Your task to perform on an android device: open wifi settings Image 0: 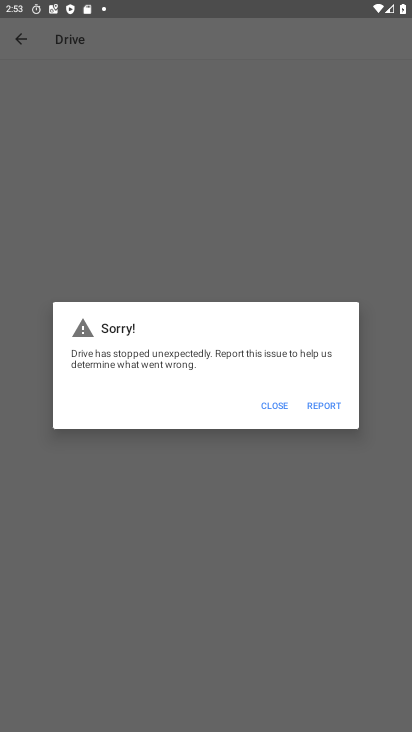
Step 0: press home button
Your task to perform on an android device: open wifi settings Image 1: 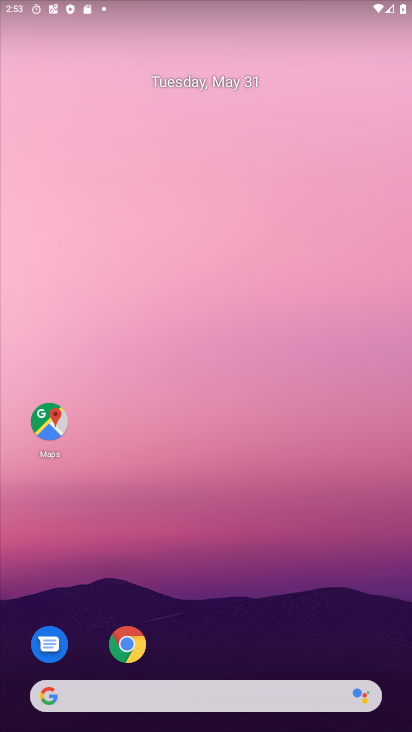
Step 1: drag from (388, 712) to (330, 205)
Your task to perform on an android device: open wifi settings Image 2: 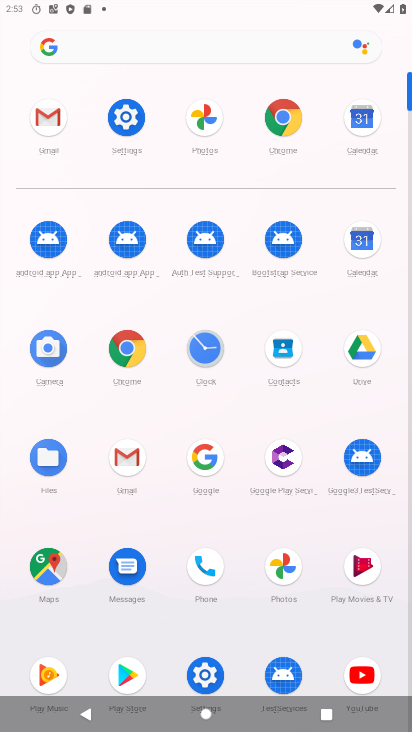
Step 2: click (134, 114)
Your task to perform on an android device: open wifi settings Image 3: 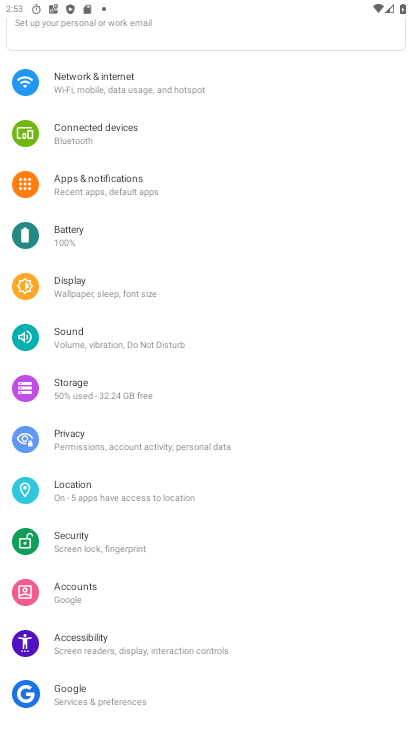
Step 3: click (97, 94)
Your task to perform on an android device: open wifi settings Image 4: 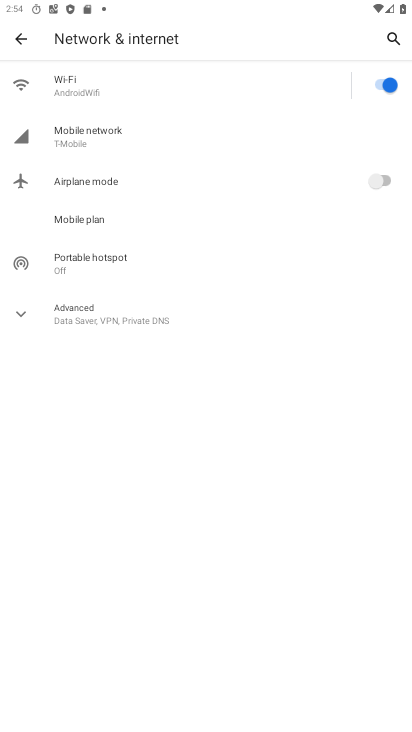
Step 4: press home button
Your task to perform on an android device: open wifi settings Image 5: 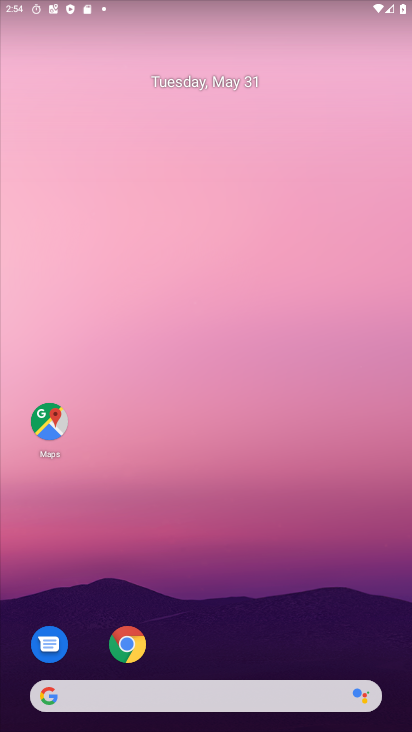
Step 5: drag from (405, 682) to (402, 199)
Your task to perform on an android device: open wifi settings Image 6: 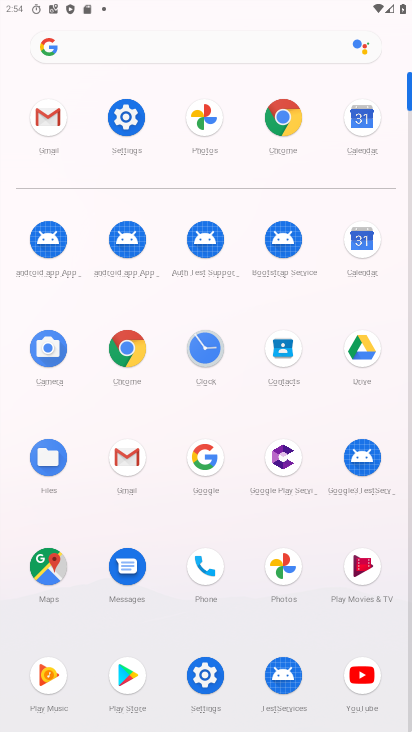
Step 6: click (120, 119)
Your task to perform on an android device: open wifi settings Image 7: 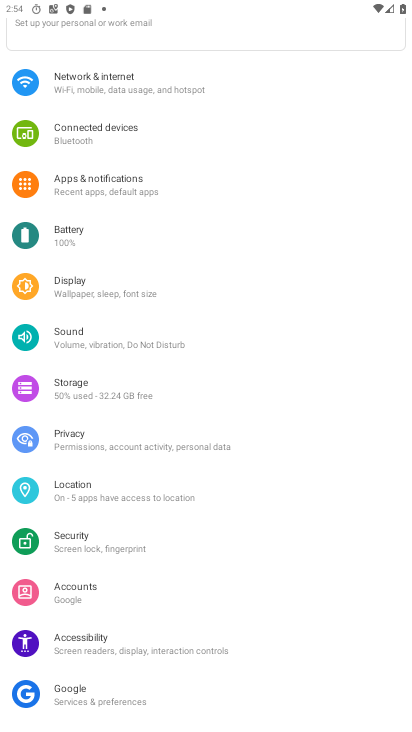
Step 7: click (104, 95)
Your task to perform on an android device: open wifi settings Image 8: 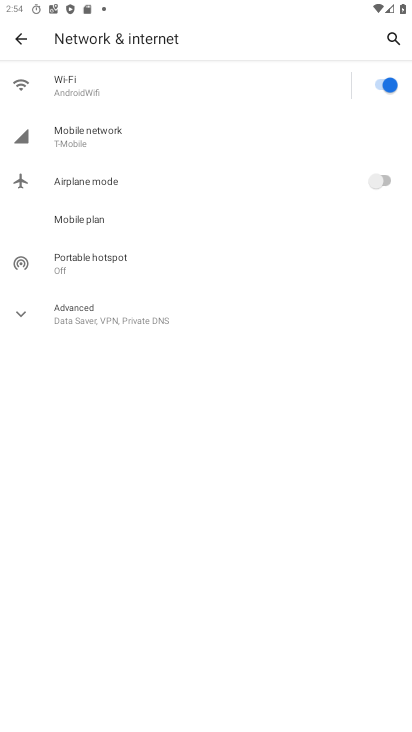
Step 8: click (81, 81)
Your task to perform on an android device: open wifi settings Image 9: 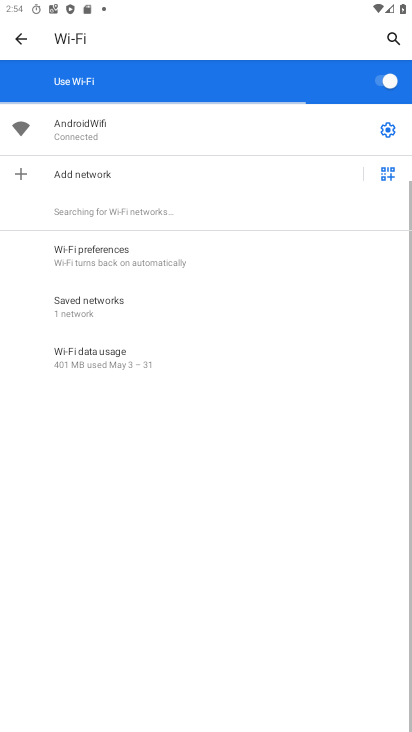
Step 9: click (379, 130)
Your task to perform on an android device: open wifi settings Image 10: 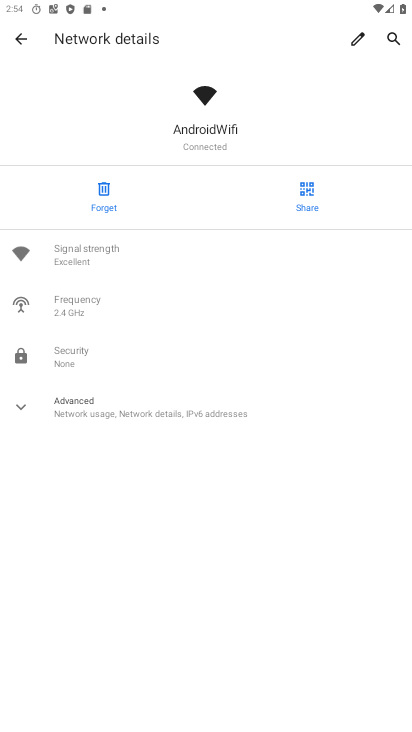
Step 10: task complete